Your task to perform on an android device: clear all cookies in the chrome app Image 0: 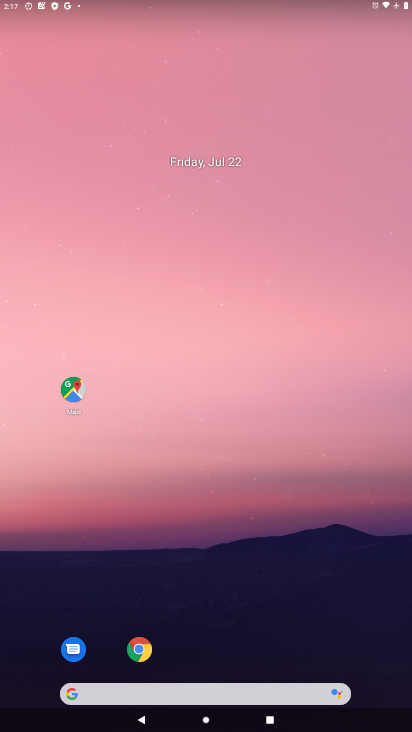
Step 0: drag from (307, 640) to (240, 8)
Your task to perform on an android device: clear all cookies in the chrome app Image 1: 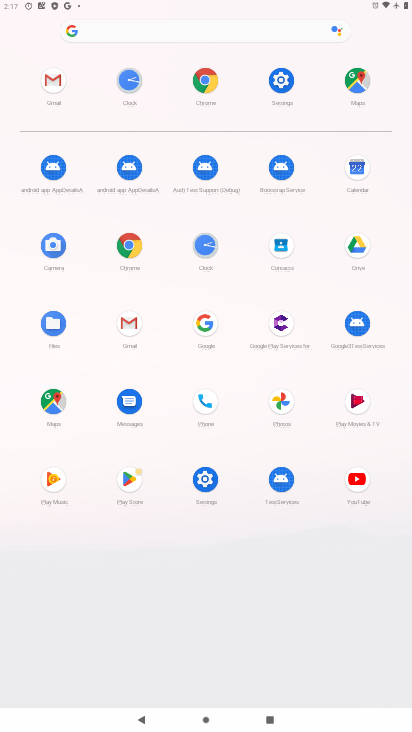
Step 1: click (133, 240)
Your task to perform on an android device: clear all cookies in the chrome app Image 2: 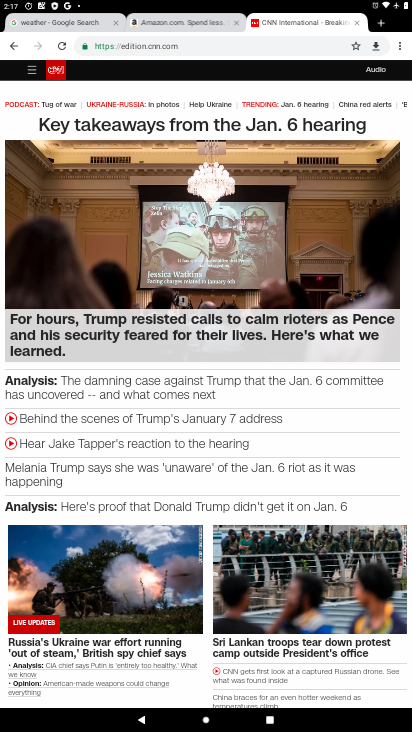
Step 2: drag from (396, 44) to (304, 168)
Your task to perform on an android device: clear all cookies in the chrome app Image 3: 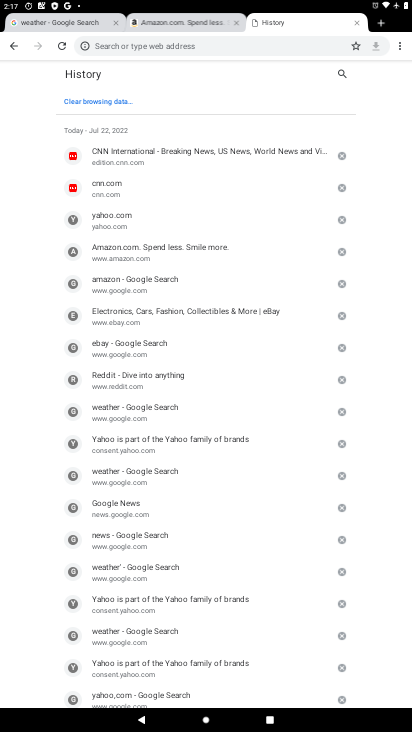
Step 3: click (120, 102)
Your task to perform on an android device: clear all cookies in the chrome app Image 4: 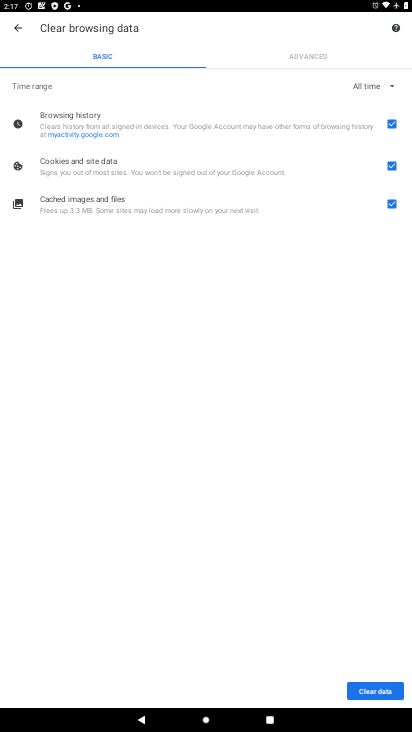
Step 4: click (374, 695)
Your task to perform on an android device: clear all cookies in the chrome app Image 5: 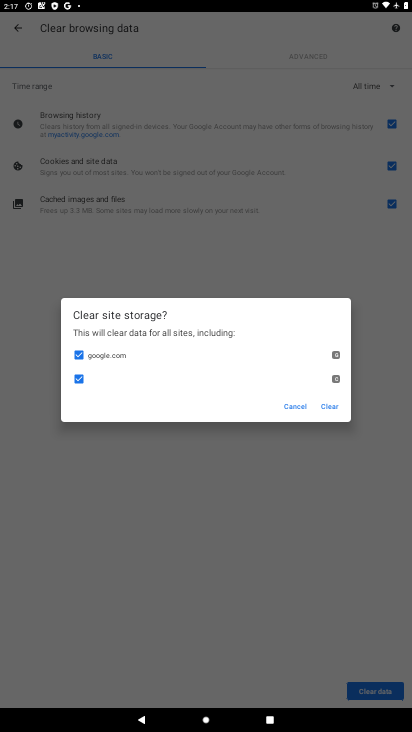
Step 5: click (332, 403)
Your task to perform on an android device: clear all cookies in the chrome app Image 6: 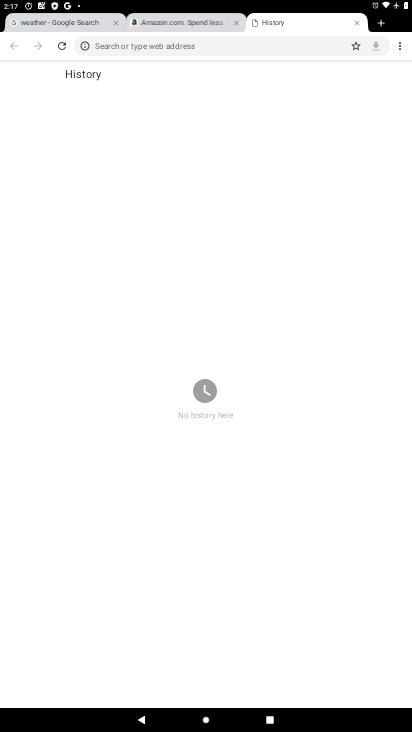
Step 6: task complete